Your task to perform on an android device: Open Chrome and go to the settings page Image 0: 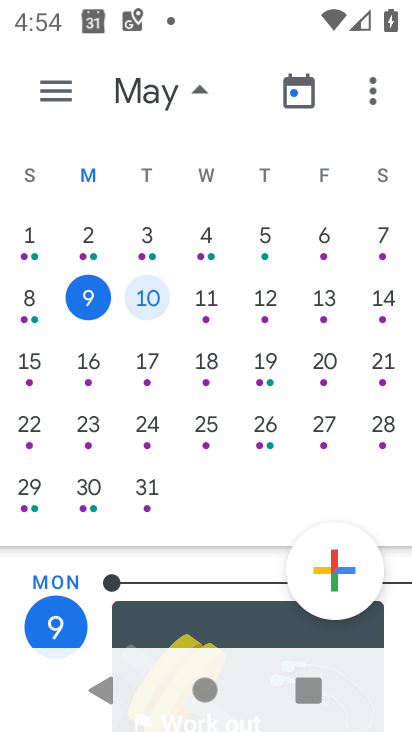
Step 0: press home button
Your task to perform on an android device: Open Chrome and go to the settings page Image 1: 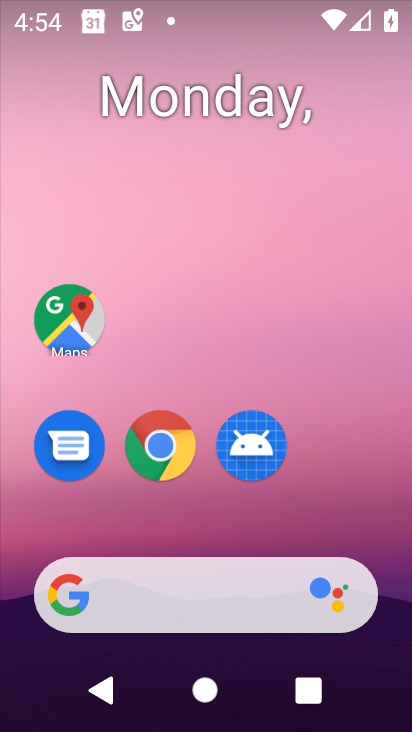
Step 1: click (178, 444)
Your task to perform on an android device: Open Chrome and go to the settings page Image 2: 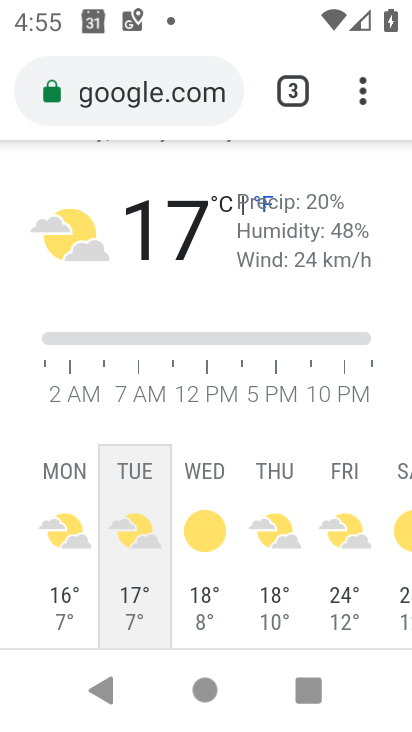
Step 2: task complete